Your task to perform on an android device: toggle improve location accuracy Image 0: 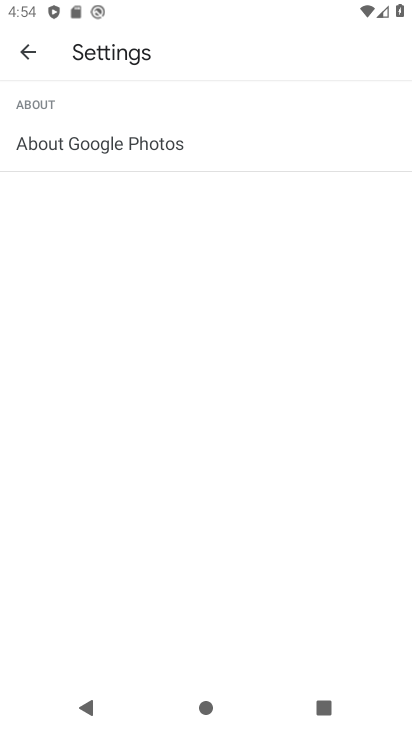
Step 0: drag from (278, 626) to (278, 144)
Your task to perform on an android device: toggle improve location accuracy Image 1: 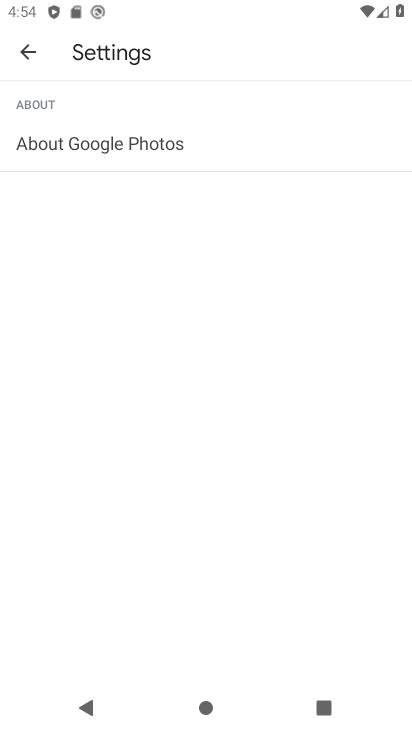
Step 1: press home button
Your task to perform on an android device: toggle improve location accuracy Image 2: 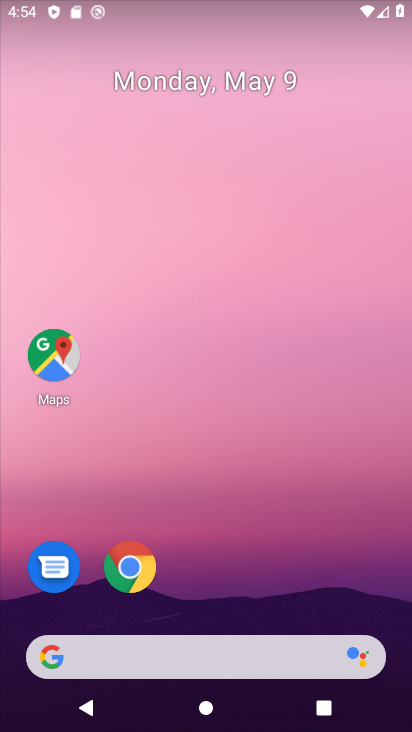
Step 2: drag from (235, 595) to (232, 95)
Your task to perform on an android device: toggle improve location accuracy Image 3: 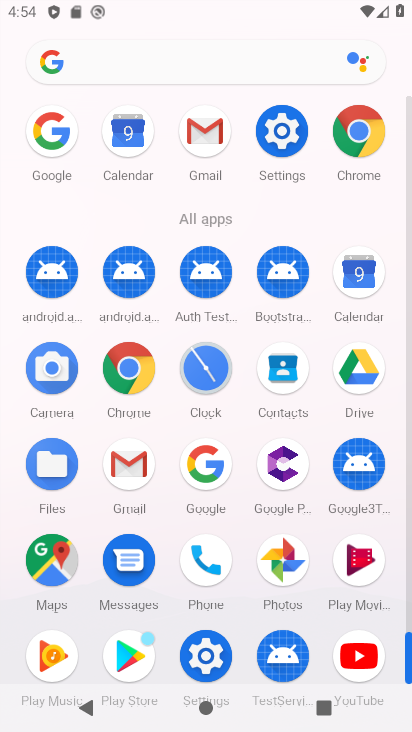
Step 3: click (276, 166)
Your task to perform on an android device: toggle improve location accuracy Image 4: 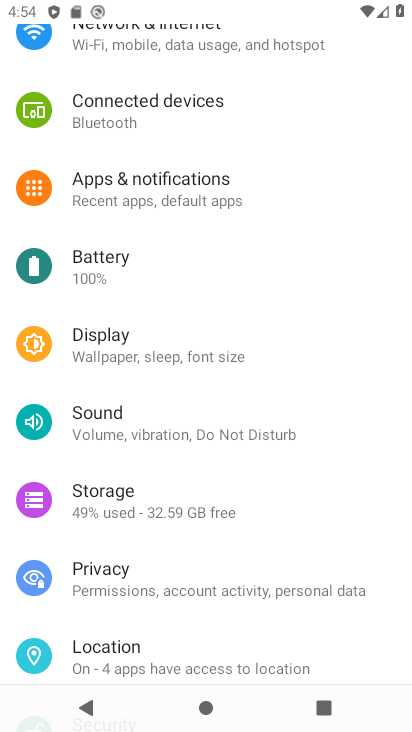
Step 4: click (114, 654)
Your task to perform on an android device: toggle improve location accuracy Image 5: 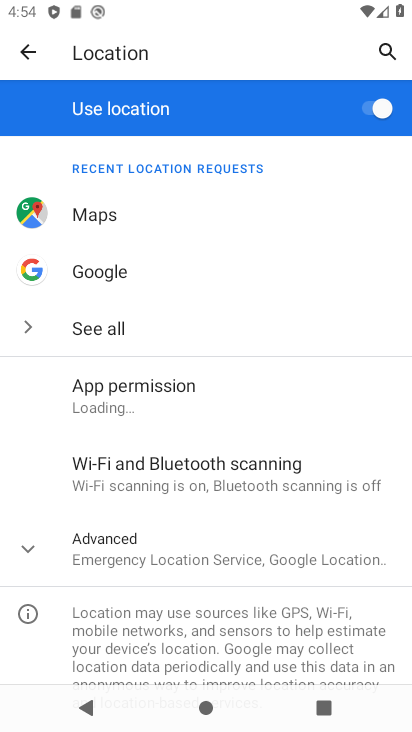
Step 5: click (130, 534)
Your task to perform on an android device: toggle improve location accuracy Image 6: 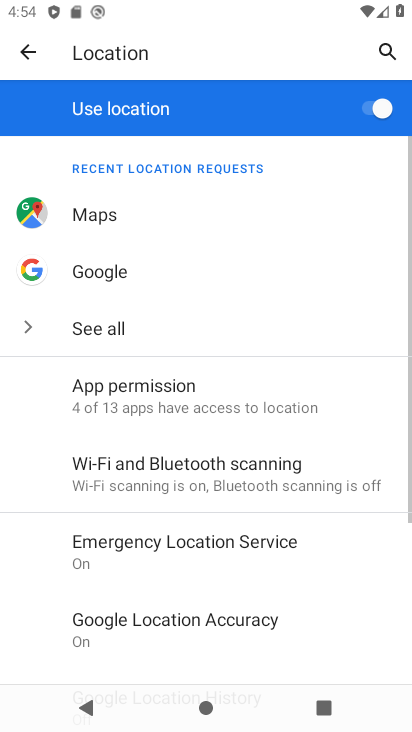
Step 6: drag from (159, 634) to (245, 352)
Your task to perform on an android device: toggle improve location accuracy Image 7: 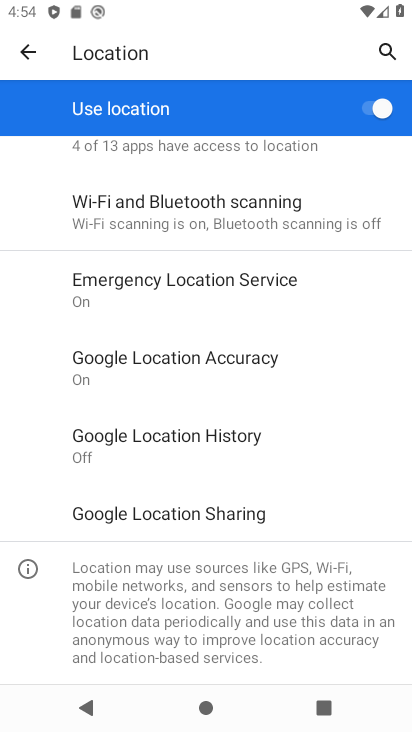
Step 7: click (102, 364)
Your task to perform on an android device: toggle improve location accuracy Image 8: 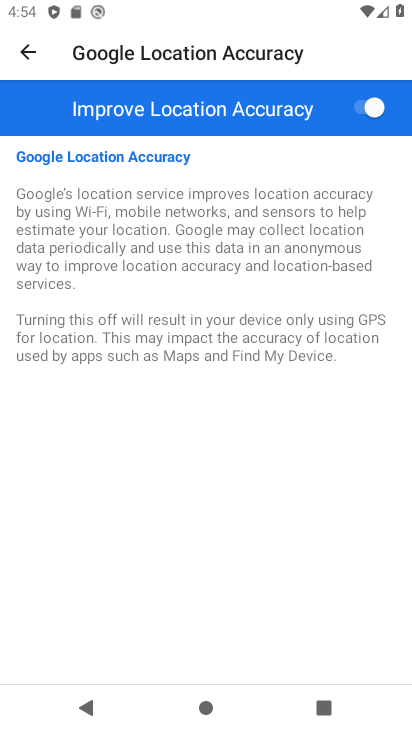
Step 8: click (375, 112)
Your task to perform on an android device: toggle improve location accuracy Image 9: 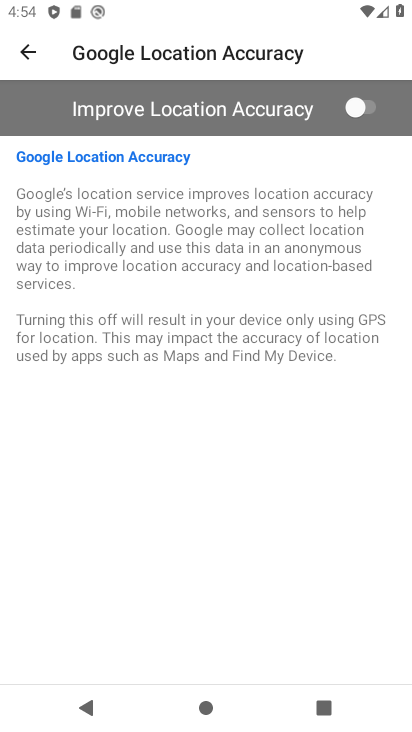
Step 9: task complete